Your task to perform on an android device: Open Android settings Image 0: 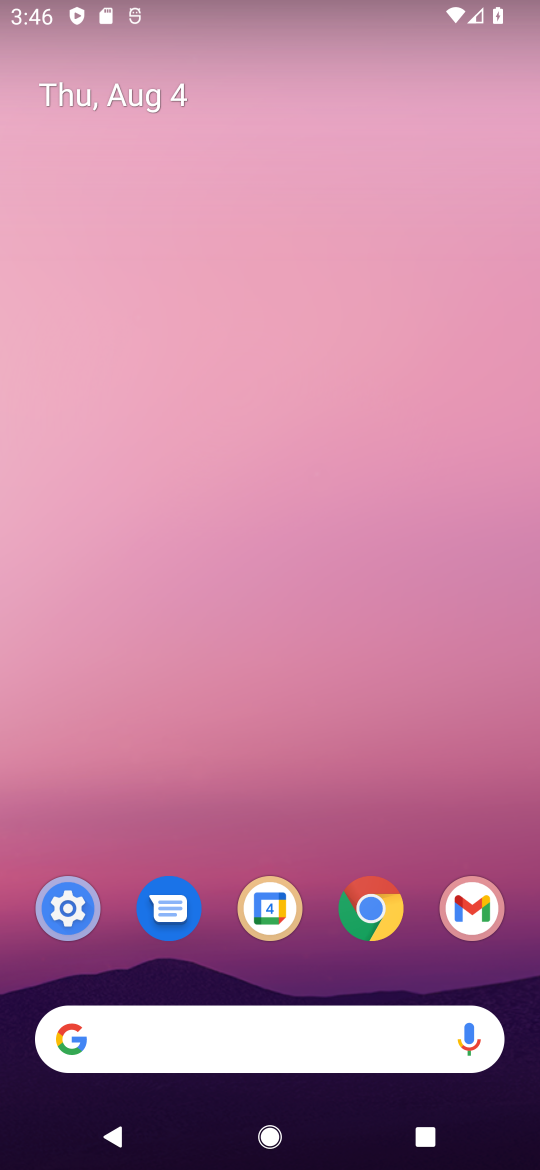
Step 0: click (52, 930)
Your task to perform on an android device: Open Android settings Image 1: 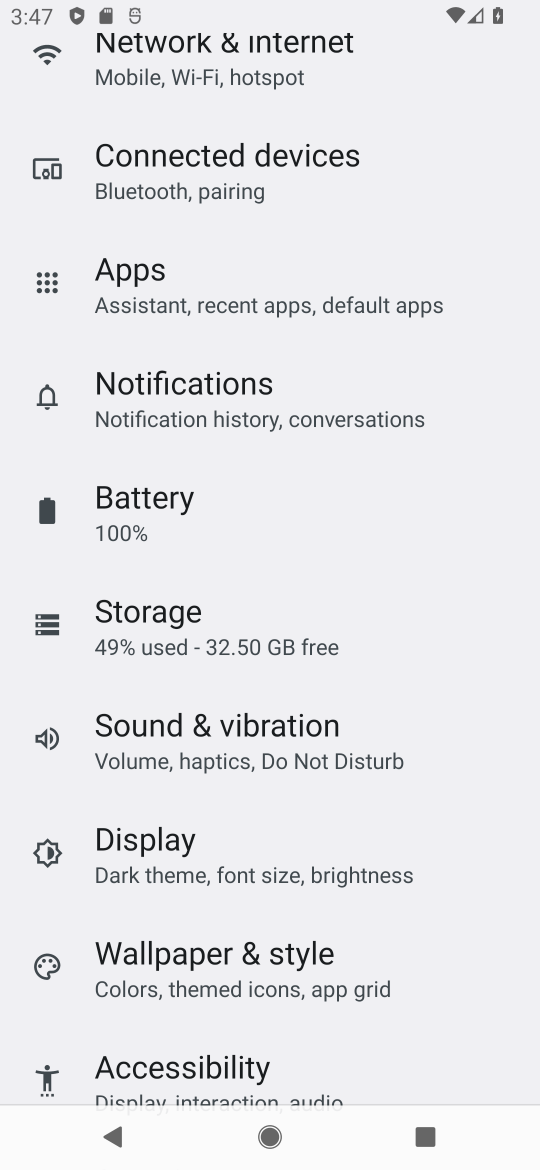
Step 1: drag from (251, 1086) to (251, 696)
Your task to perform on an android device: Open Android settings Image 2: 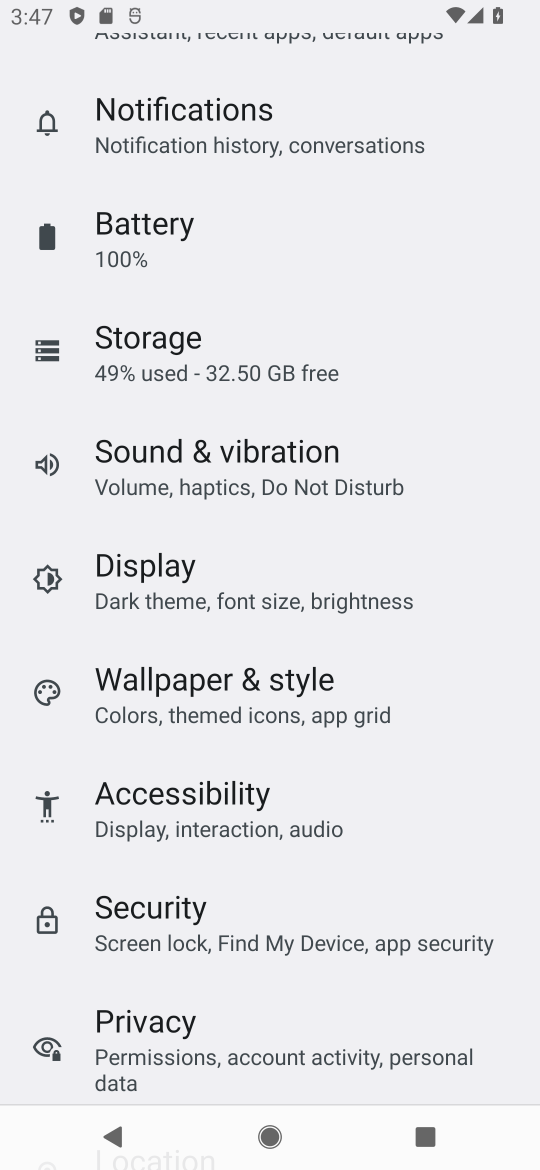
Step 2: drag from (176, 1017) to (169, 99)
Your task to perform on an android device: Open Android settings Image 3: 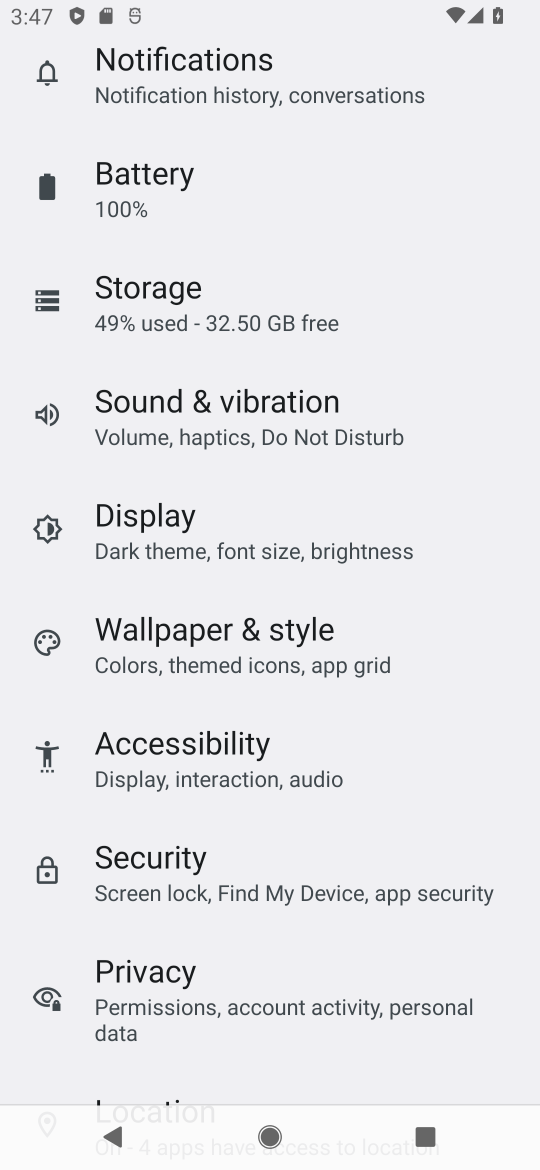
Step 3: drag from (160, 998) to (134, 97)
Your task to perform on an android device: Open Android settings Image 4: 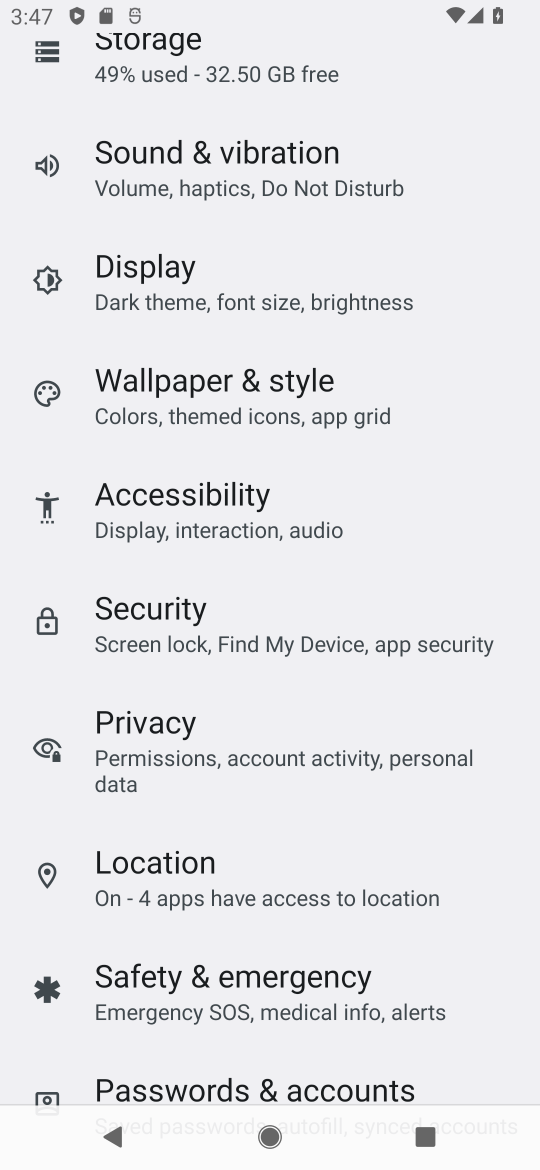
Step 4: drag from (173, 1090) to (167, 258)
Your task to perform on an android device: Open Android settings Image 5: 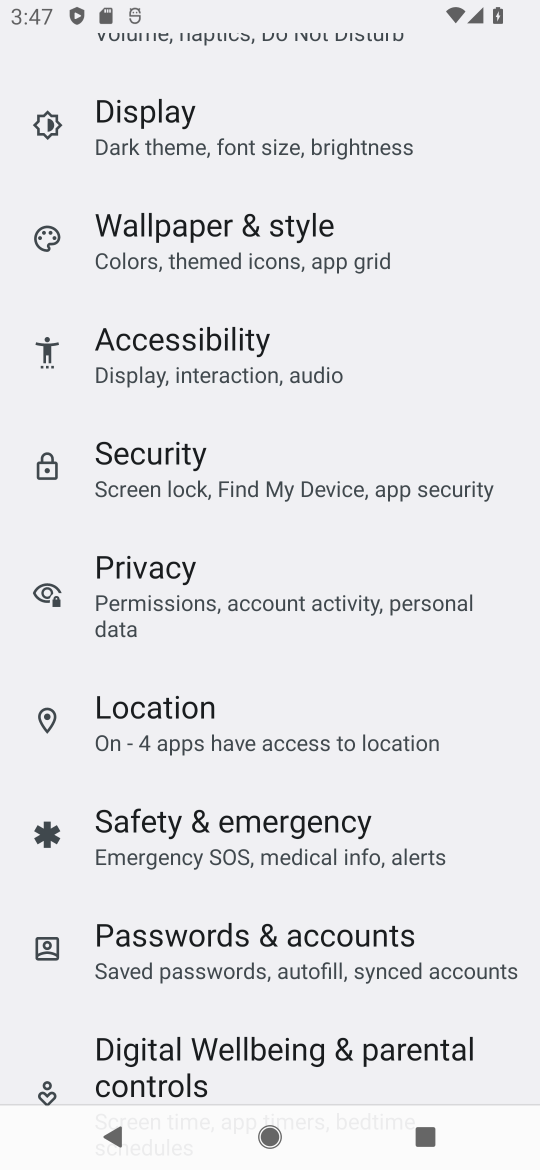
Step 5: drag from (209, 1005) to (155, 24)
Your task to perform on an android device: Open Android settings Image 6: 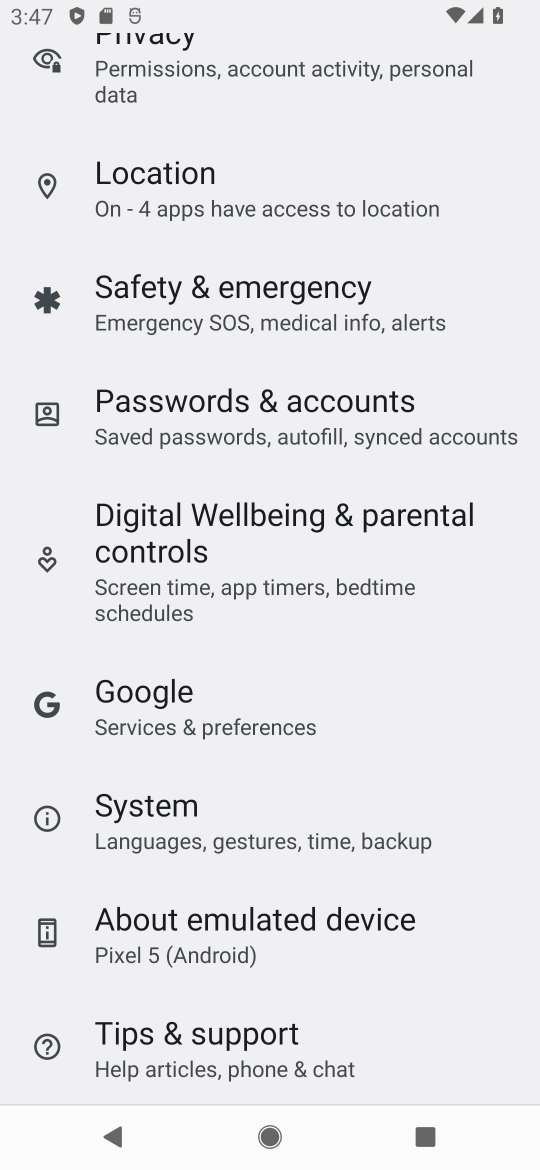
Step 6: click (276, 835)
Your task to perform on an android device: Open Android settings Image 7: 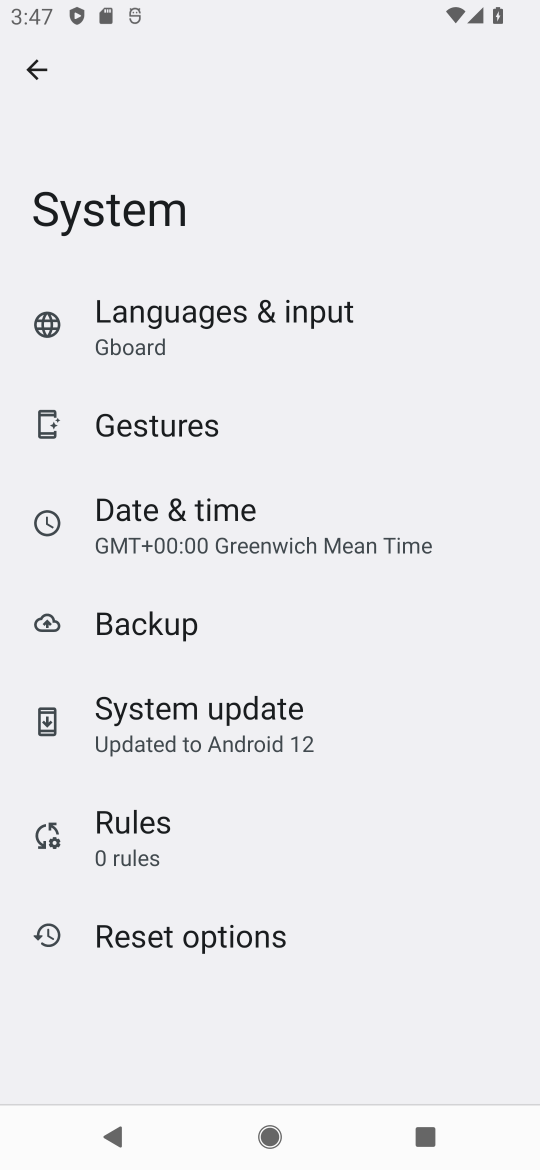
Step 7: task complete